Your task to perform on an android device: Open internet settings Image 0: 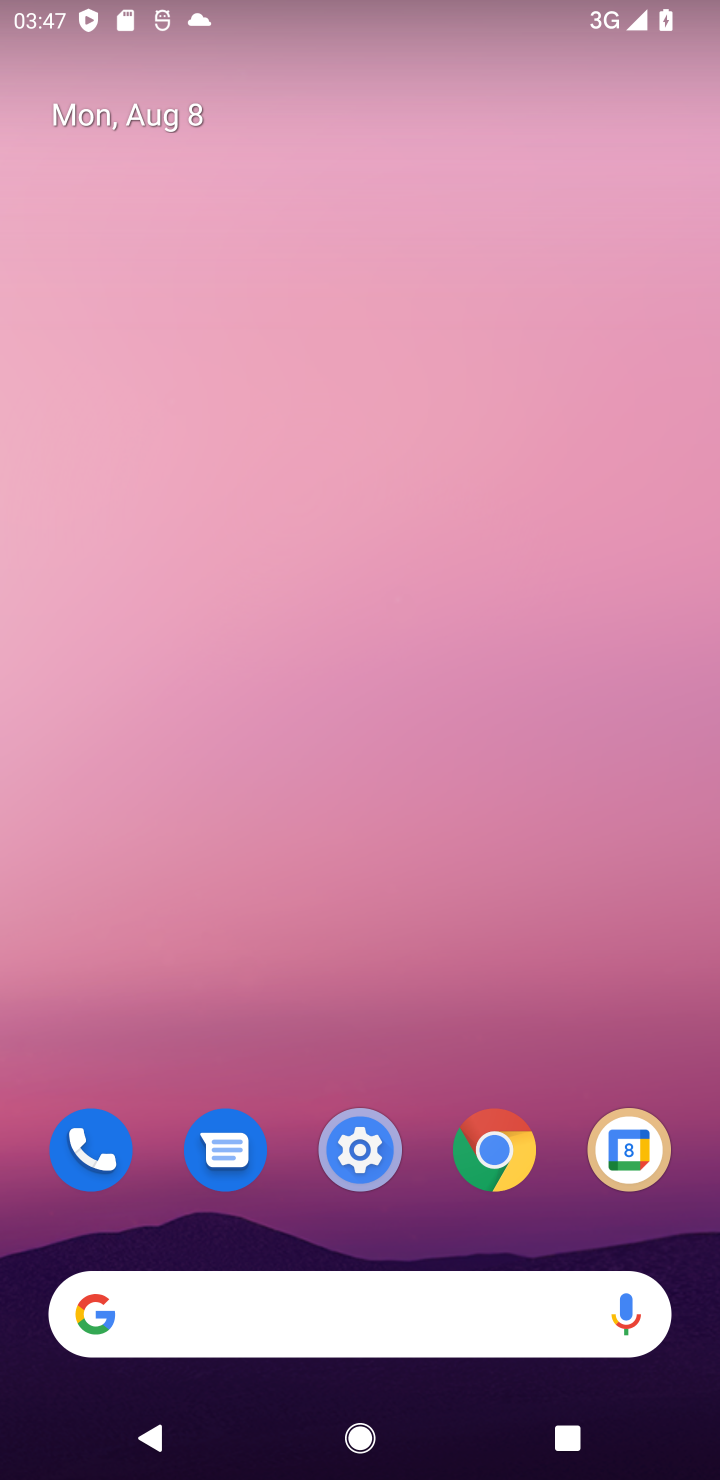
Step 0: click (378, 1171)
Your task to perform on an android device: Open internet settings Image 1: 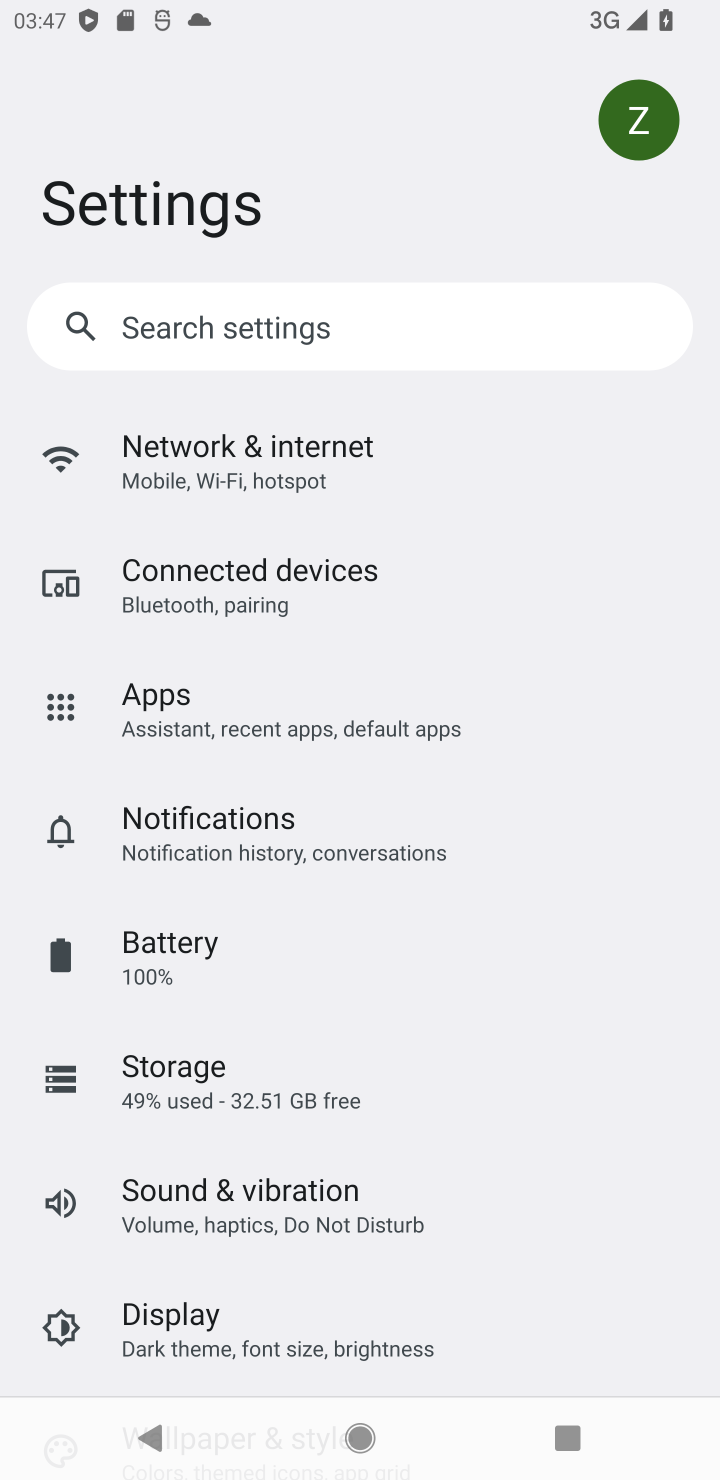
Step 1: click (244, 445)
Your task to perform on an android device: Open internet settings Image 2: 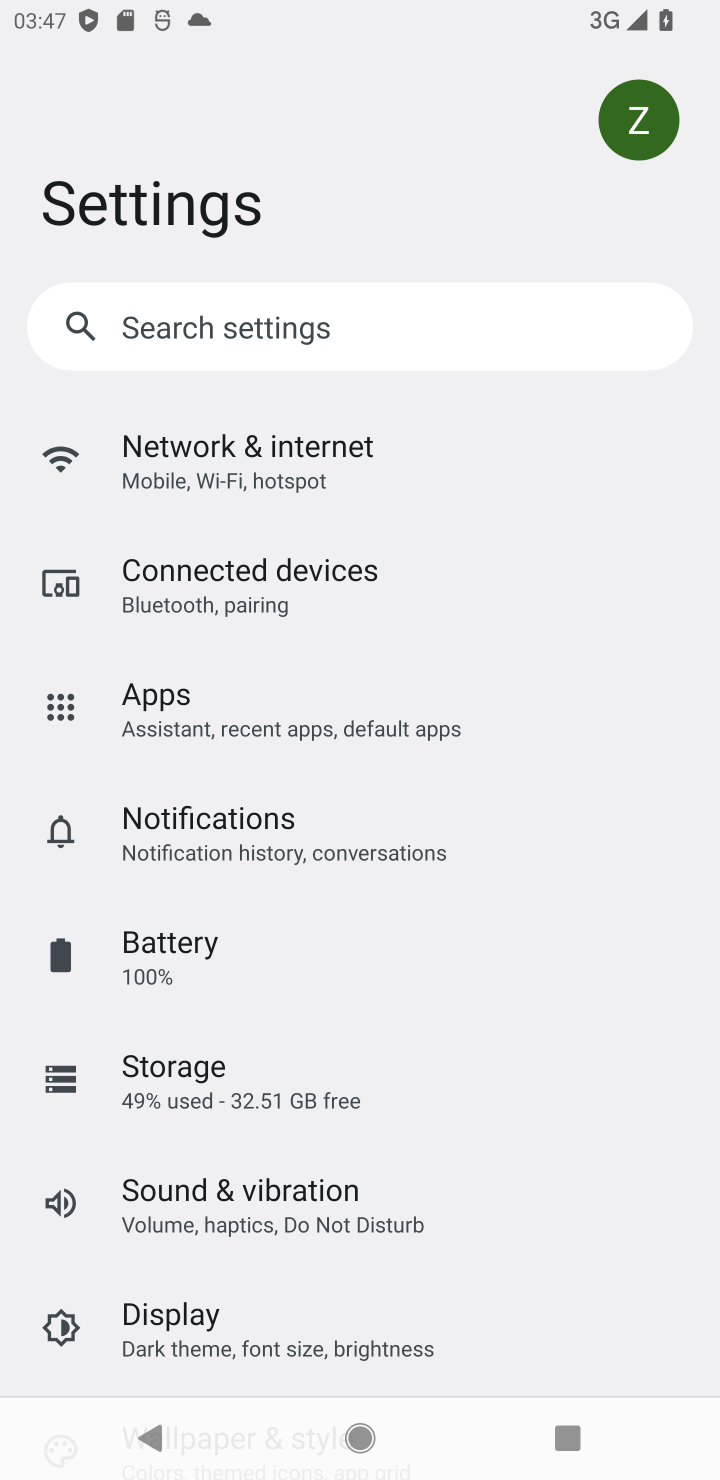
Step 2: click (244, 445)
Your task to perform on an android device: Open internet settings Image 3: 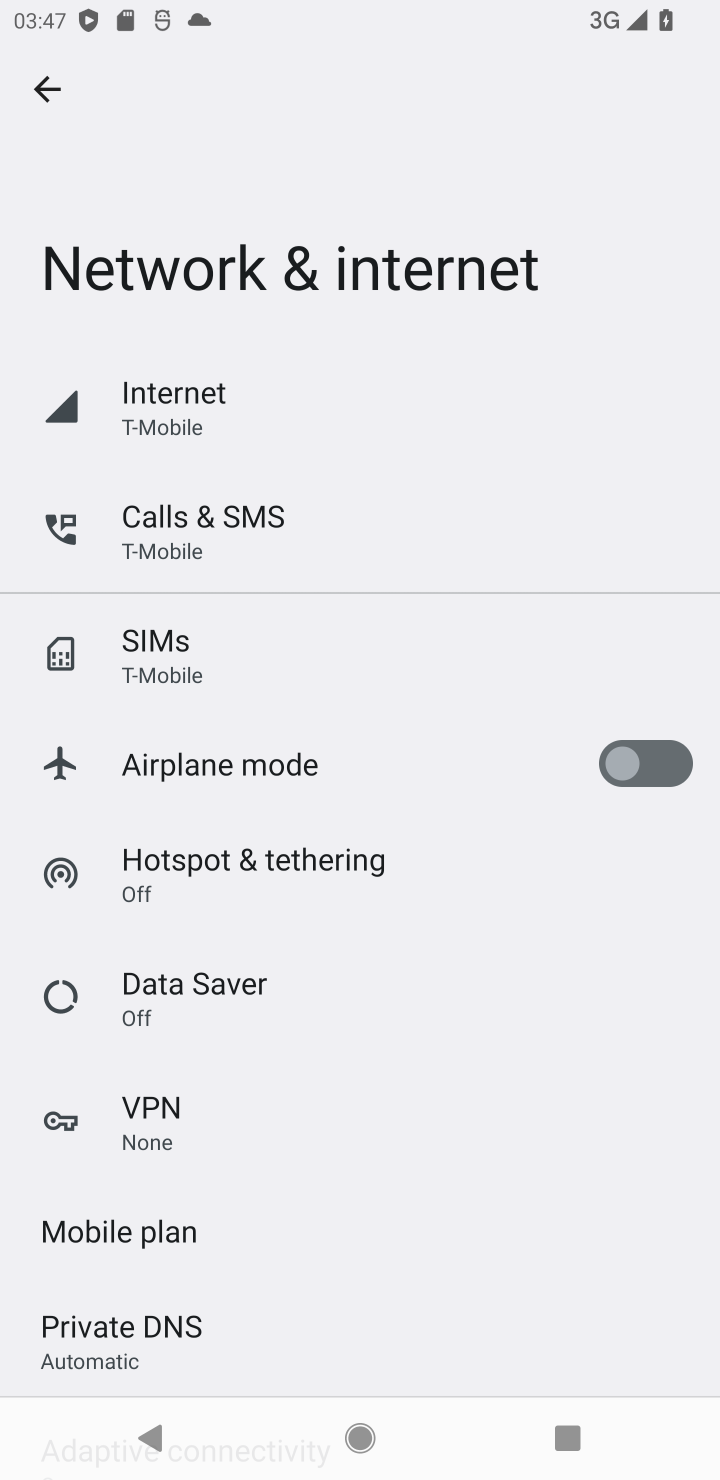
Step 3: click (184, 395)
Your task to perform on an android device: Open internet settings Image 4: 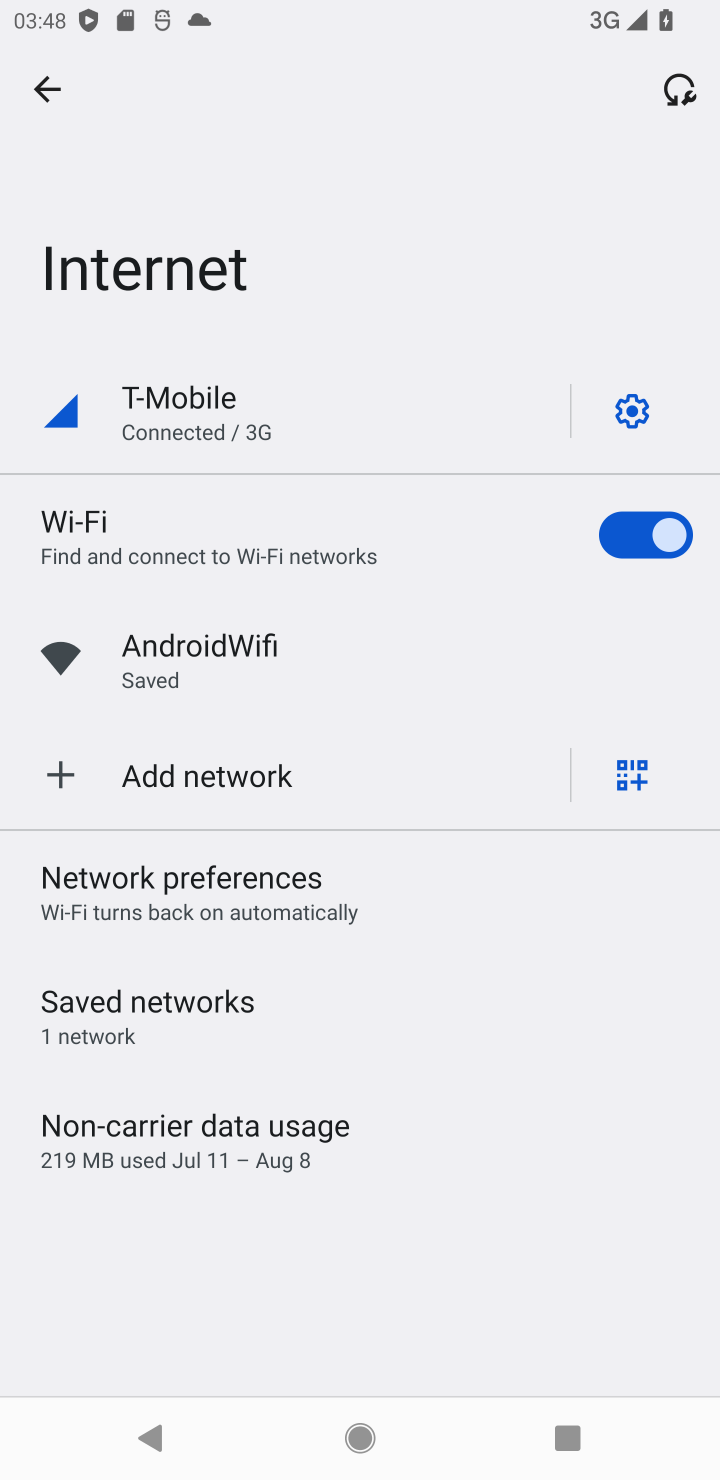
Step 4: task complete